Your task to perform on an android device: Turn off the flashlight Image 0: 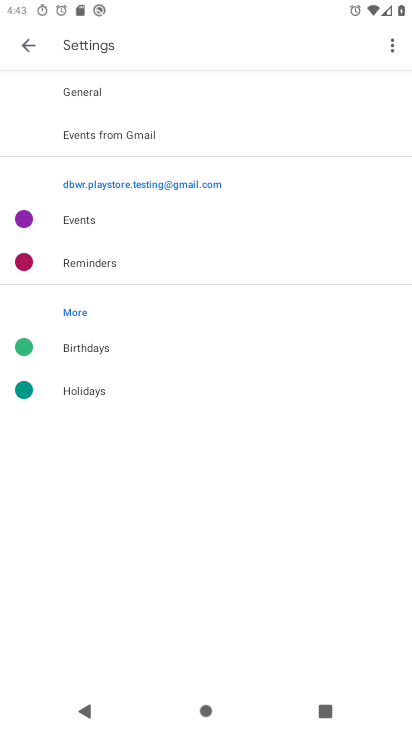
Step 0: press home button
Your task to perform on an android device: Turn off the flashlight Image 1: 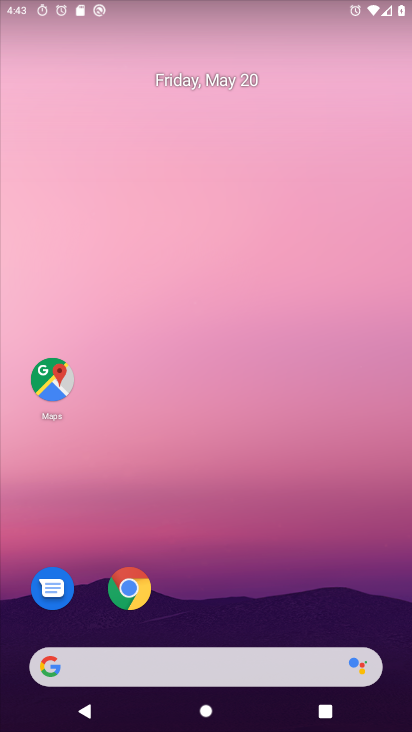
Step 1: task complete